Your task to perform on an android device: Show me the alarms in the clock app Image 0: 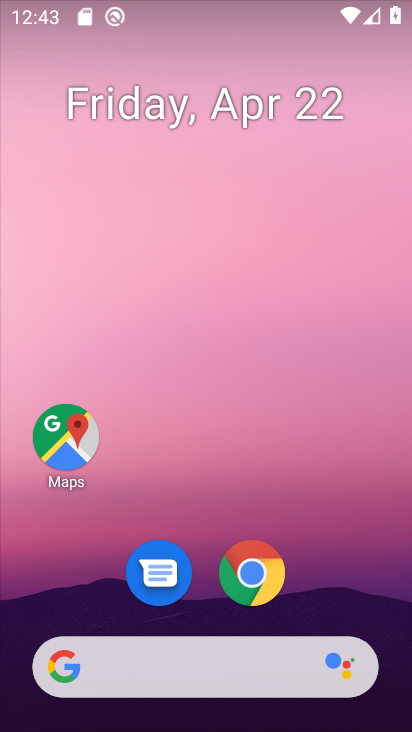
Step 0: drag from (188, 635) to (256, 147)
Your task to perform on an android device: Show me the alarms in the clock app Image 1: 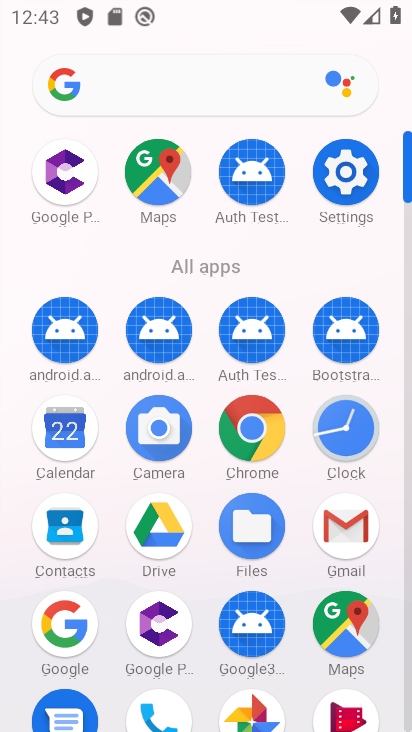
Step 1: click (352, 446)
Your task to perform on an android device: Show me the alarms in the clock app Image 2: 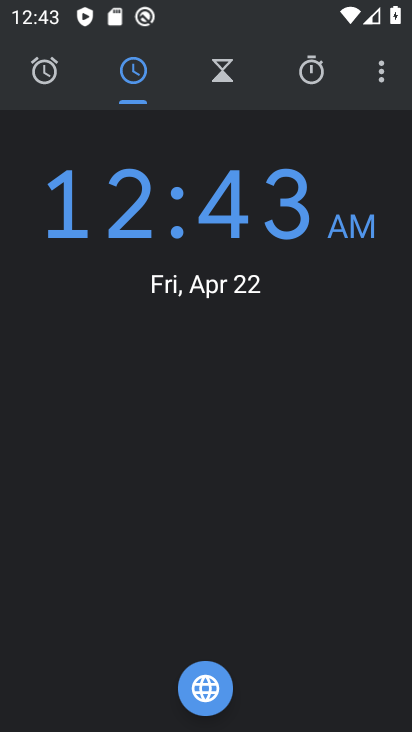
Step 2: click (45, 63)
Your task to perform on an android device: Show me the alarms in the clock app Image 3: 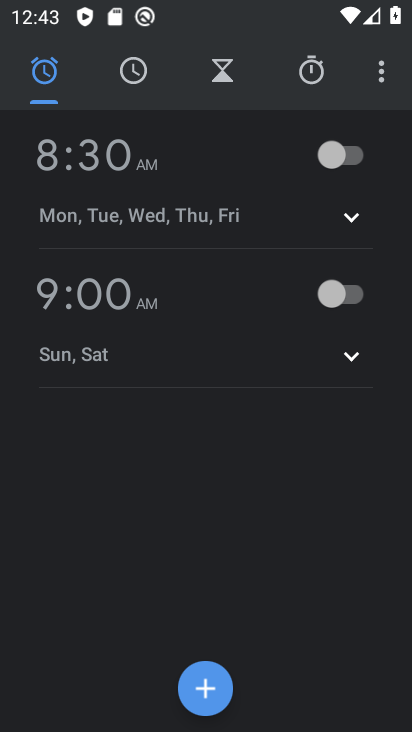
Step 3: task complete